Your task to perform on an android device: open app "Gmail" Image 0: 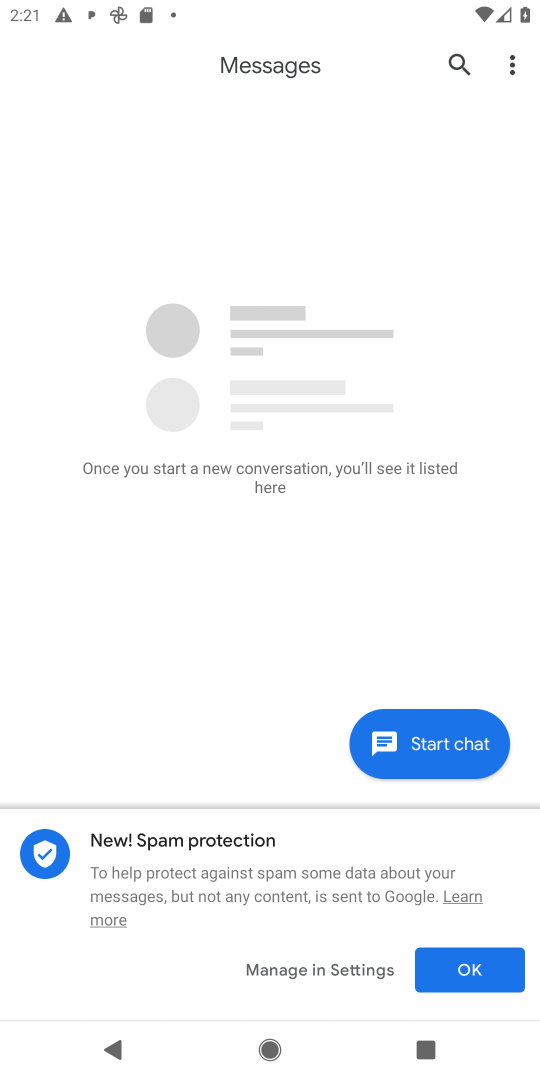
Step 0: press home button
Your task to perform on an android device: open app "Gmail" Image 1: 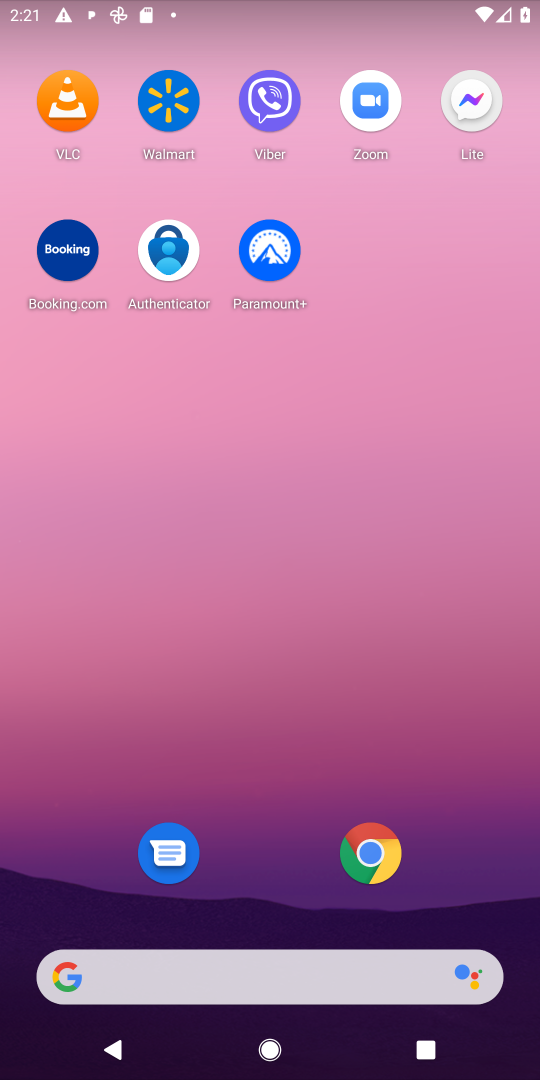
Step 1: drag from (342, 911) to (310, 50)
Your task to perform on an android device: open app "Gmail" Image 2: 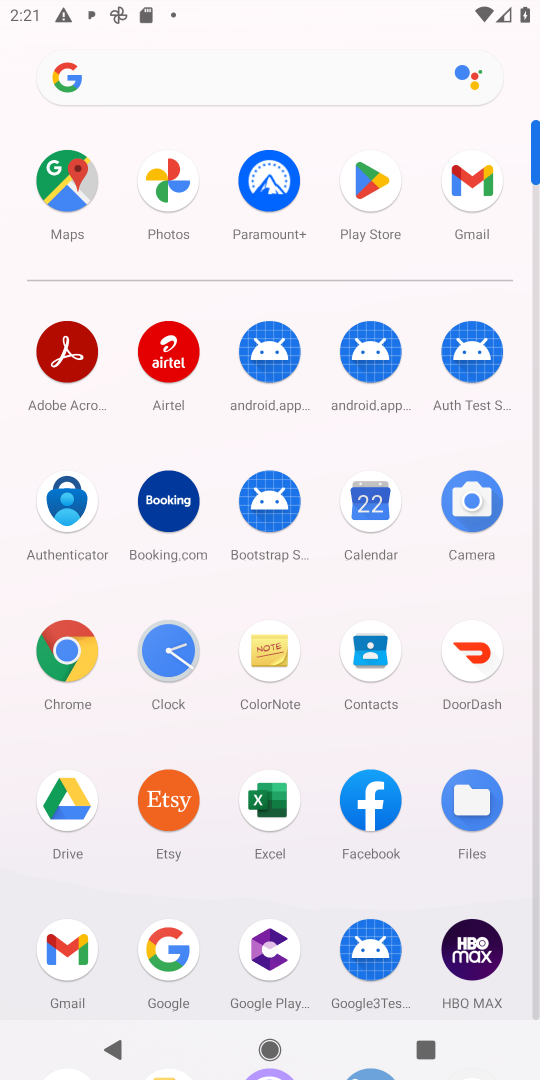
Step 2: click (372, 172)
Your task to perform on an android device: open app "Gmail" Image 3: 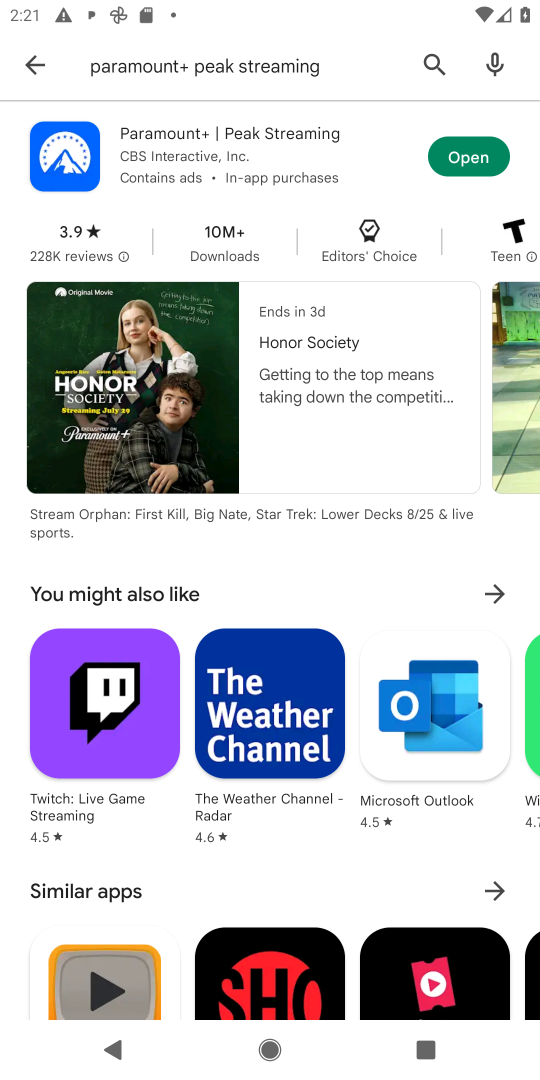
Step 3: click (27, 64)
Your task to perform on an android device: open app "Gmail" Image 4: 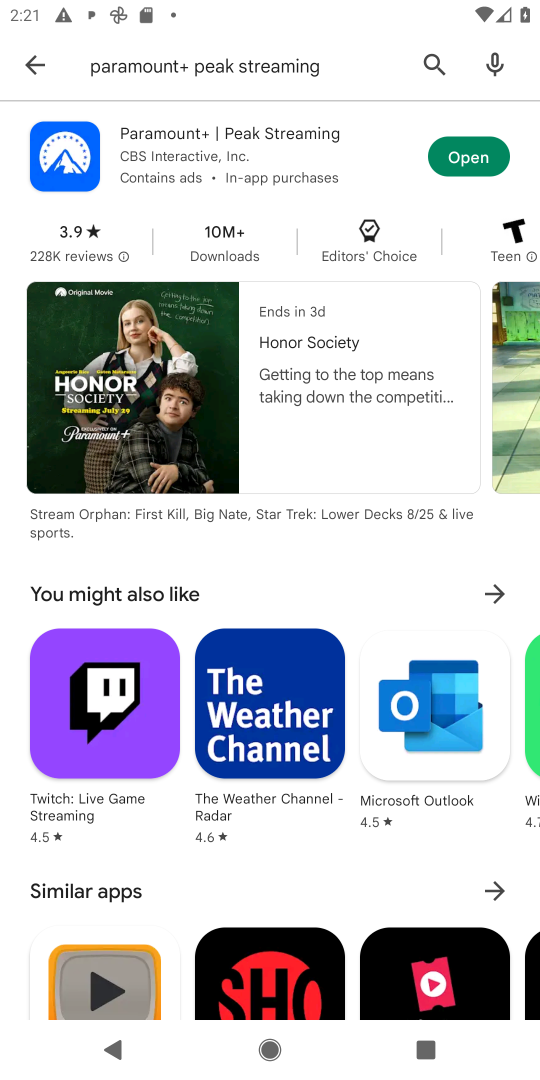
Step 4: click (44, 53)
Your task to perform on an android device: open app "Gmail" Image 5: 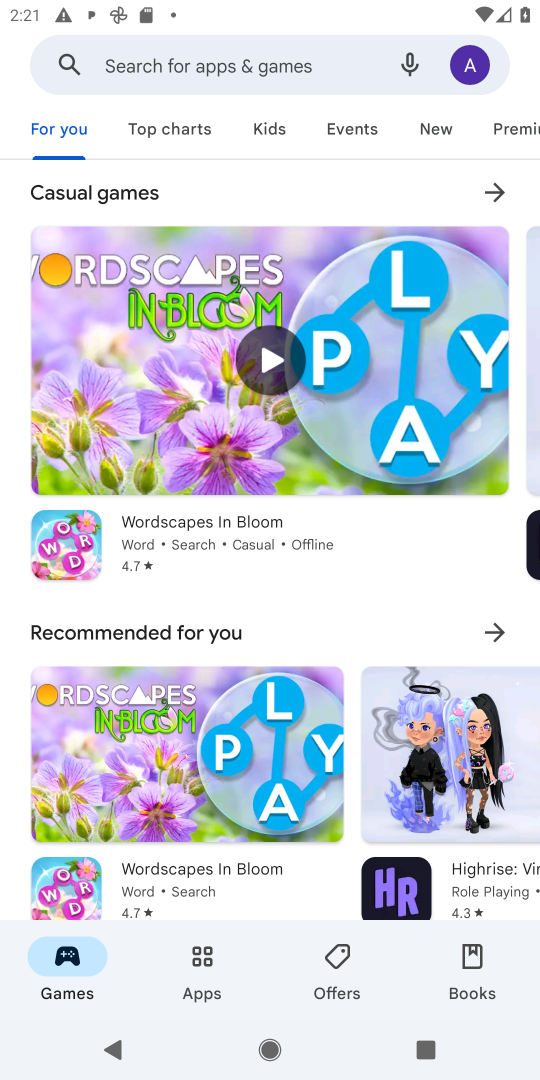
Step 5: click (171, 48)
Your task to perform on an android device: open app "Gmail" Image 6: 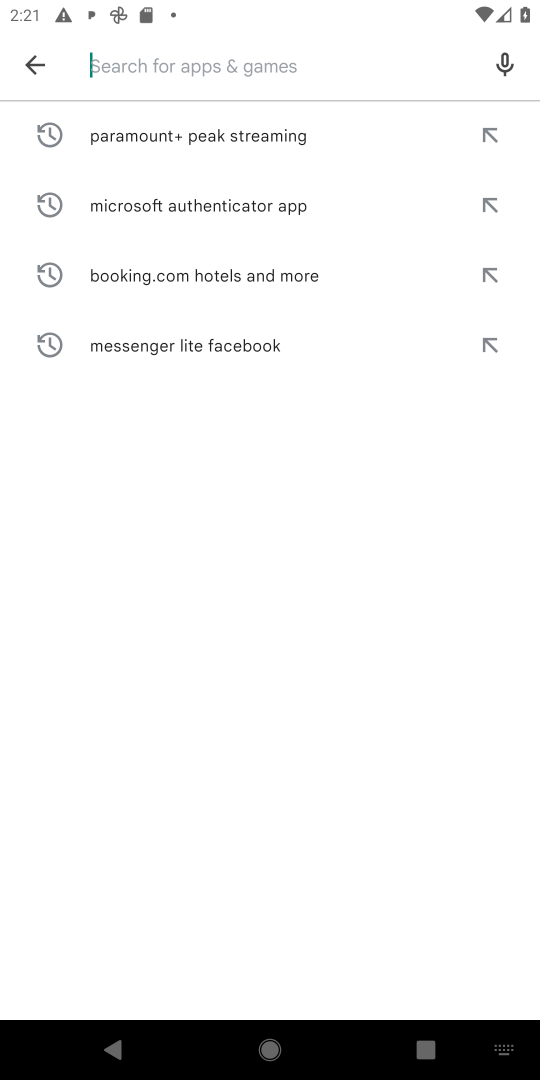
Step 6: type " Gmail "
Your task to perform on an android device: open app "Gmail" Image 7: 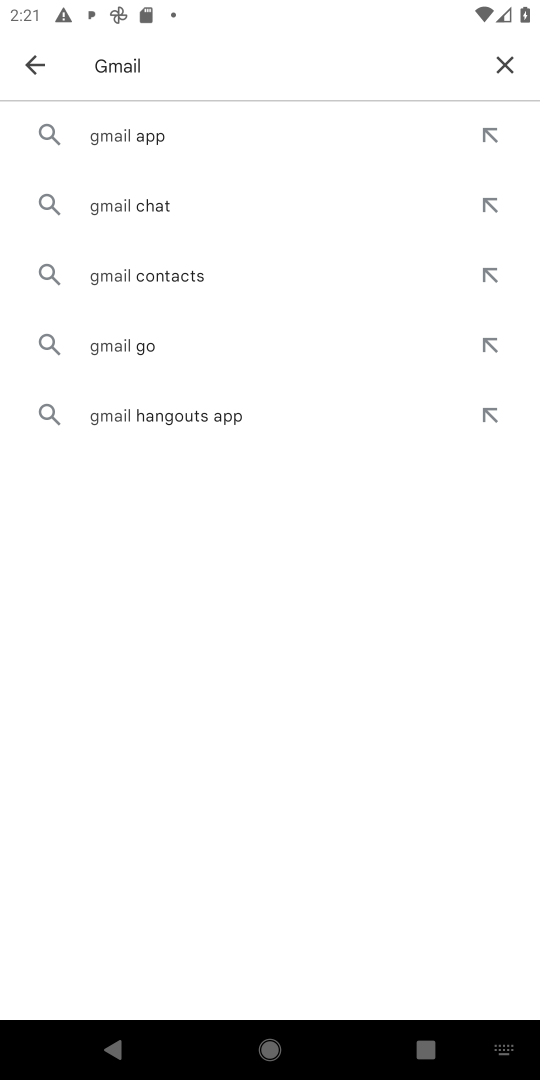
Step 7: click (198, 119)
Your task to perform on an android device: open app "Gmail" Image 8: 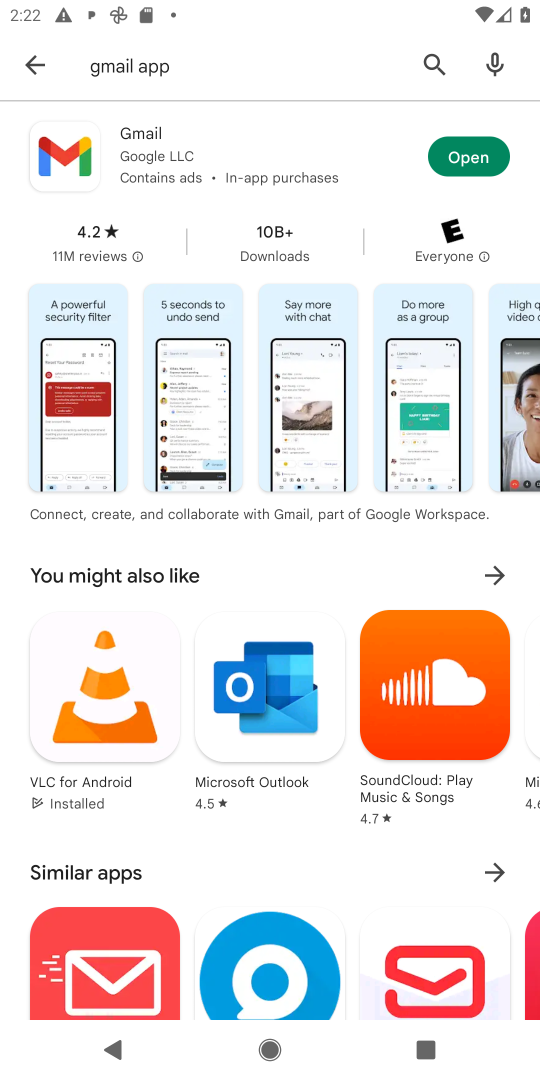
Step 8: click (476, 138)
Your task to perform on an android device: open app "Gmail" Image 9: 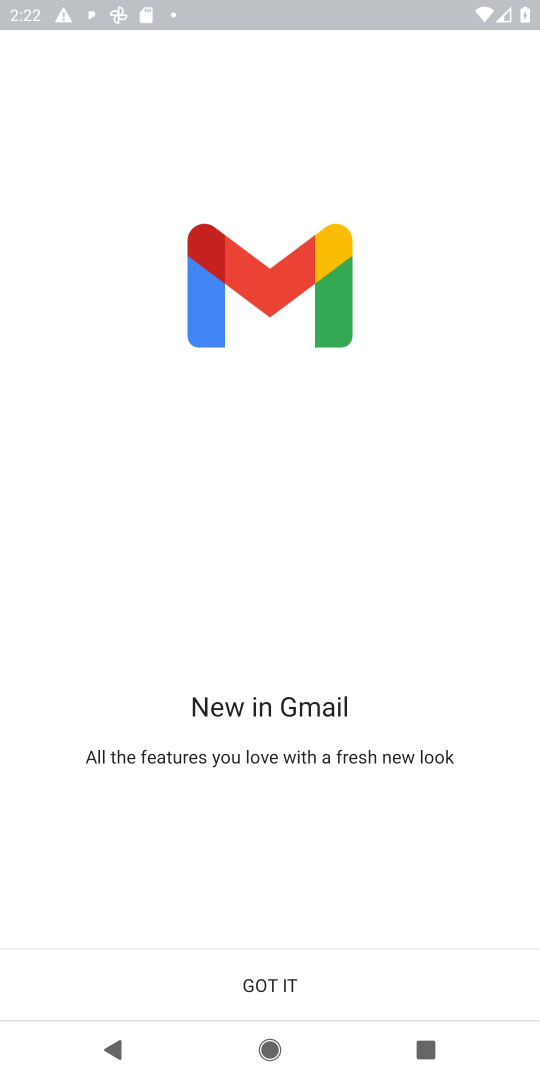
Step 9: task complete